Your task to perform on an android device: Search for pizza restaurants on Maps Image 0: 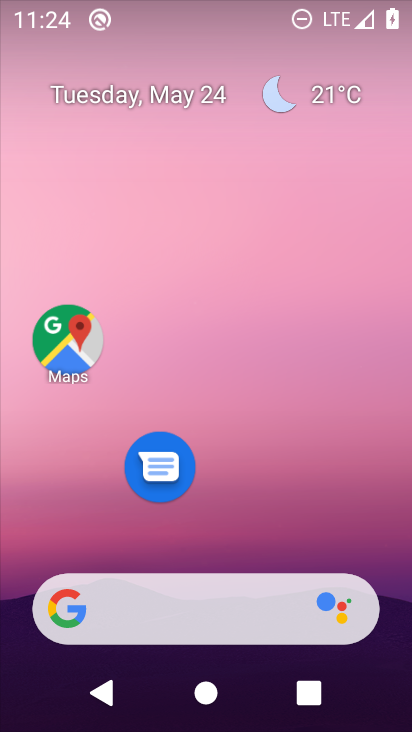
Step 0: drag from (207, 545) to (257, 221)
Your task to perform on an android device: Search for pizza restaurants on Maps Image 1: 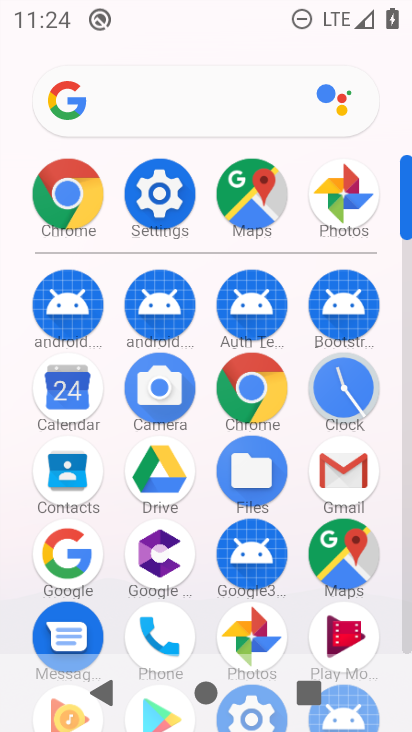
Step 1: click (249, 200)
Your task to perform on an android device: Search for pizza restaurants on Maps Image 2: 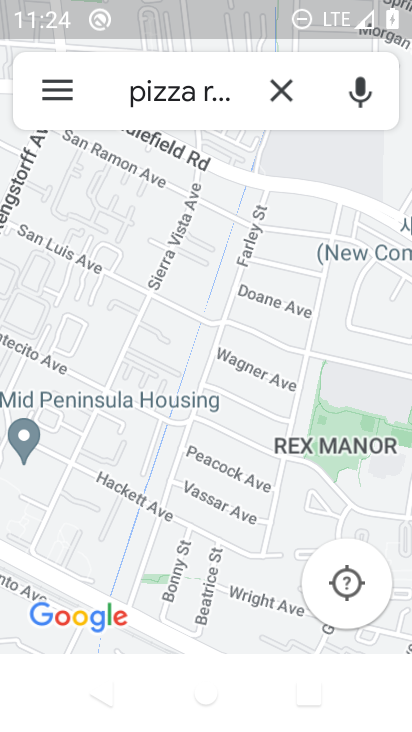
Step 2: task complete